Your task to perform on an android device: open app "WhatsApp Messenger" (install if not already installed) Image 0: 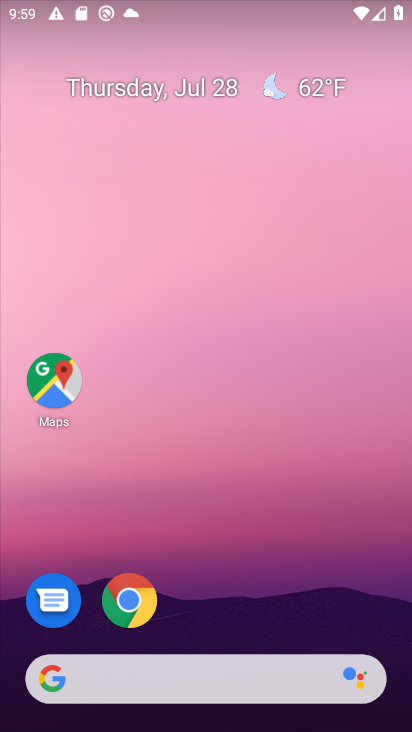
Step 0: drag from (246, 581) to (253, 24)
Your task to perform on an android device: open app "WhatsApp Messenger" (install if not already installed) Image 1: 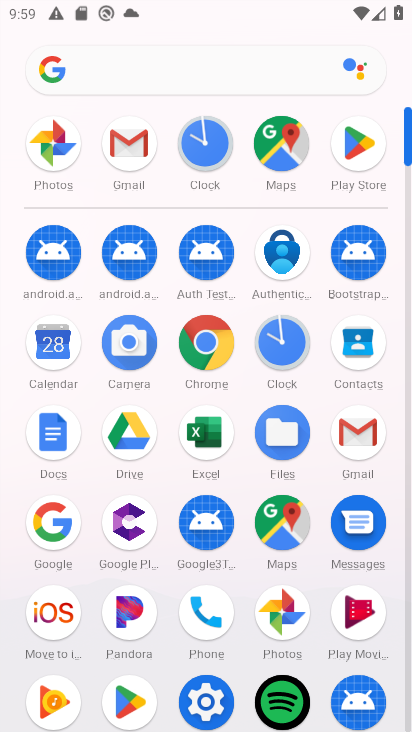
Step 1: click (358, 142)
Your task to perform on an android device: open app "WhatsApp Messenger" (install if not already installed) Image 2: 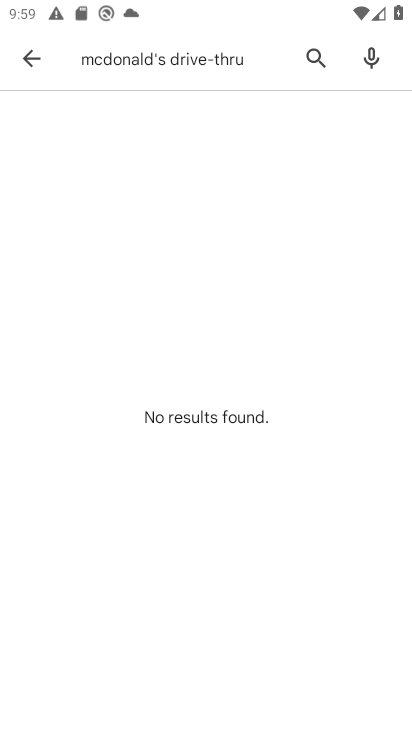
Step 2: click (322, 57)
Your task to perform on an android device: open app "WhatsApp Messenger" (install if not already installed) Image 3: 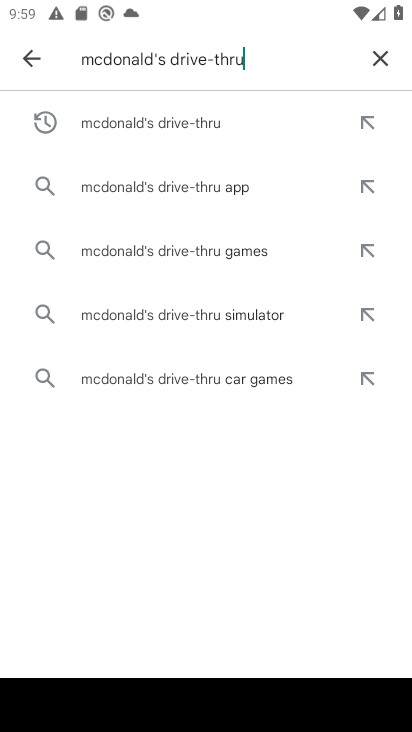
Step 3: click (363, 54)
Your task to perform on an android device: open app "WhatsApp Messenger" (install if not already installed) Image 4: 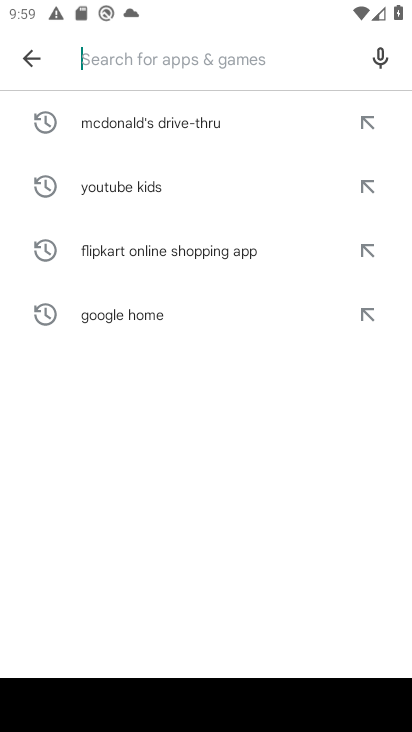
Step 4: click (214, 72)
Your task to perform on an android device: open app "WhatsApp Messenger" (install if not already installed) Image 5: 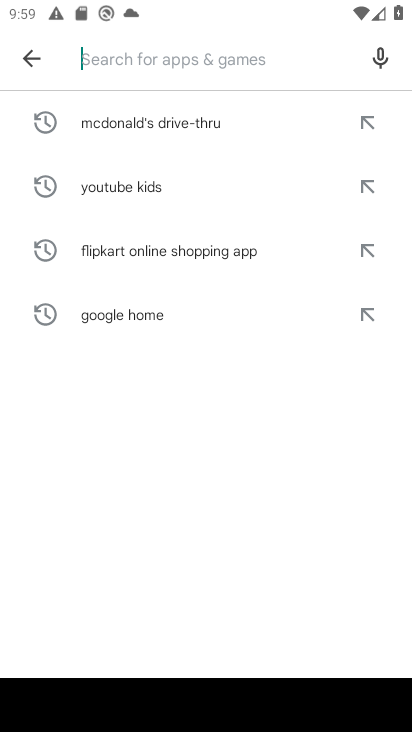
Step 5: type "WhatsApp Messenger"
Your task to perform on an android device: open app "WhatsApp Messenger" (install if not already installed) Image 6: 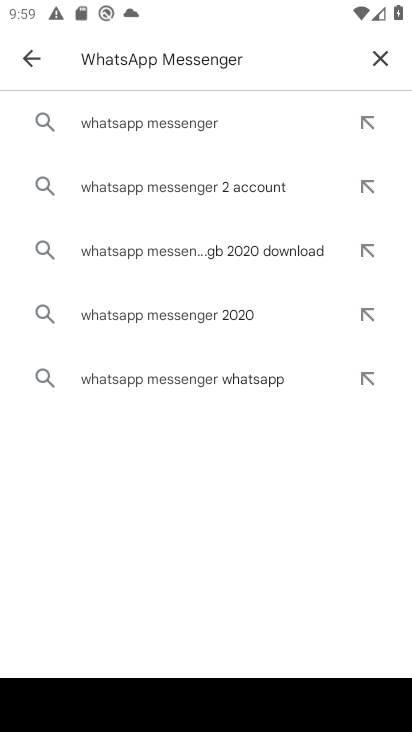
Step 6: click (154, 128)
Your task to perform on an android device: open app "WhatsApp Messenger" (install if not already installed) Image 7: 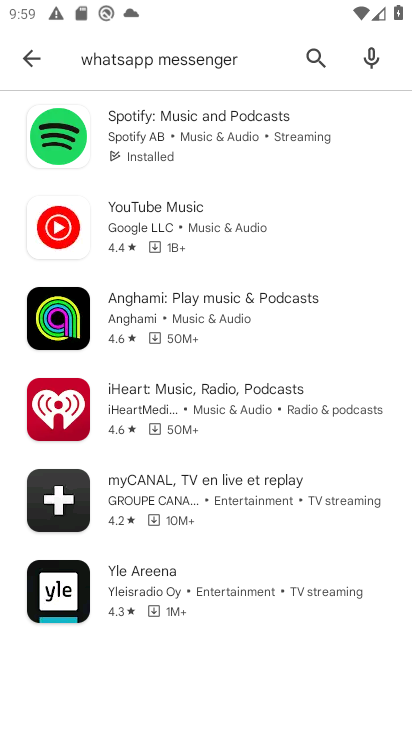
Step 7: task complete